Your task to perform on an android device: add a contact in the contacts app Image 0: 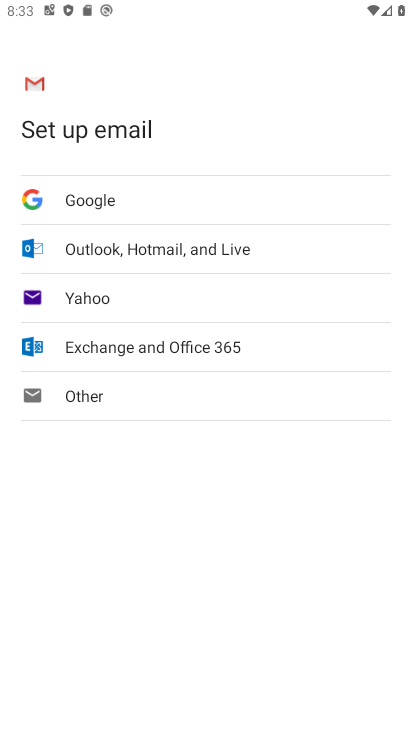
Step 0: press home button
Your task to perform on an android device: add a contact in the contacts app Image 1: 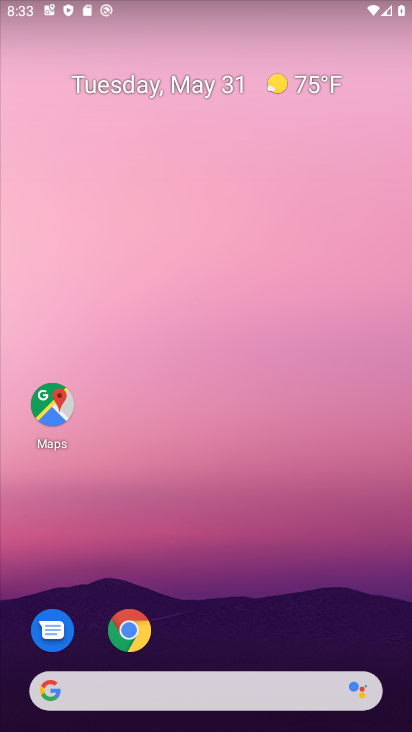
Step 1: drag from (288, 687) to (285, 218)
Your task to perform on an android device: add a contact in the contacts app Image 2: 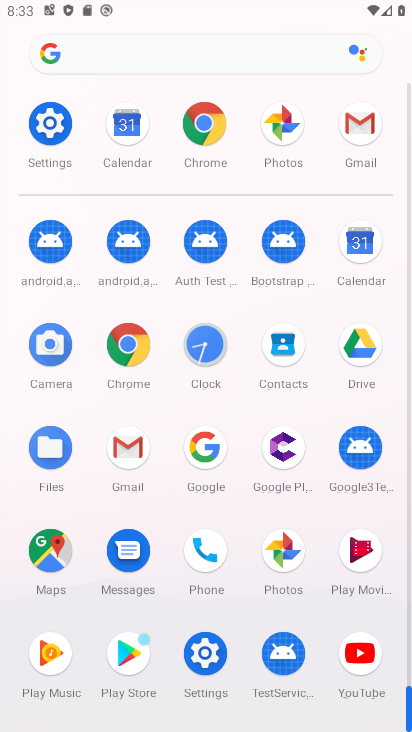
Step 2: click (291, 348)
Your task to perform on an android device: add a contact in the contacts app Image 3: 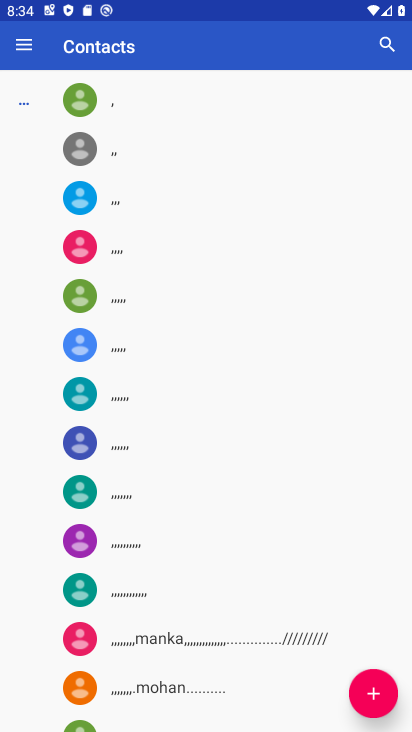
Step 3: click (386, 692)
Your task to perform on an android device: add a contact in the contacts app Image 4: 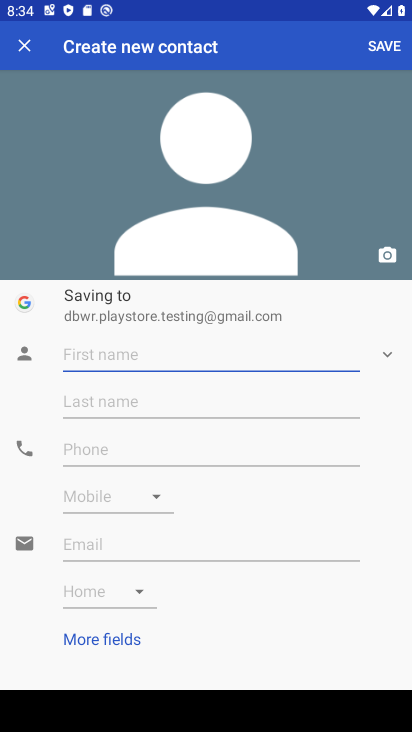
Step 4: type "guigig"
Your task to perform on an android device: add a contact in the contacts app Image 5: 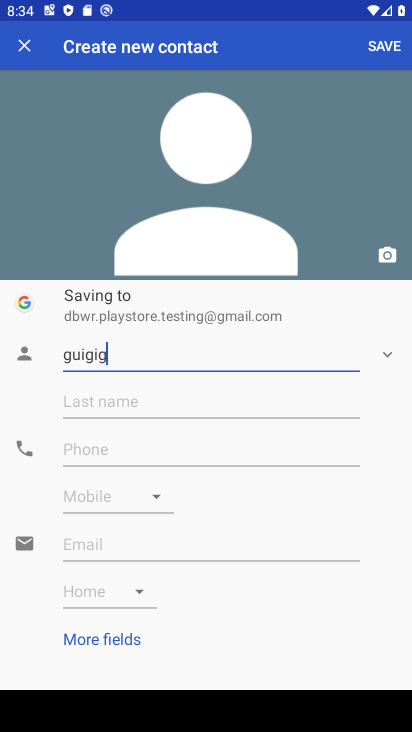
Step 5: click (162, 436)
Your task to perform on an android device: add a contact in the contacts app Image 6: 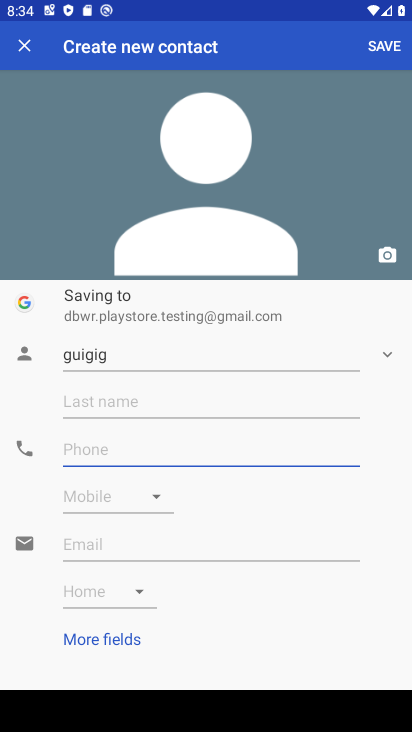
Step 6: type "98975856"
Your task to perform on an android device: add a contact in the contacts app Image 7: 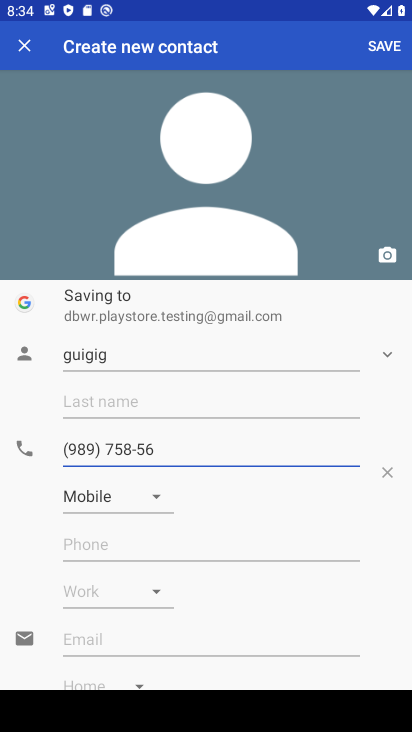
Step 7: click (380, 47)
Your task to perform on an android device: add a contact in the contacts app Image 8: 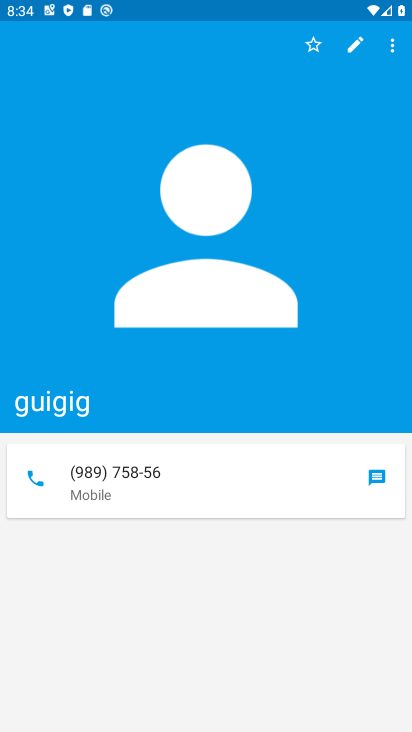
Step 8: task complete